Your task to perform on an android device: turn off data saver in the chrome app Image 0: 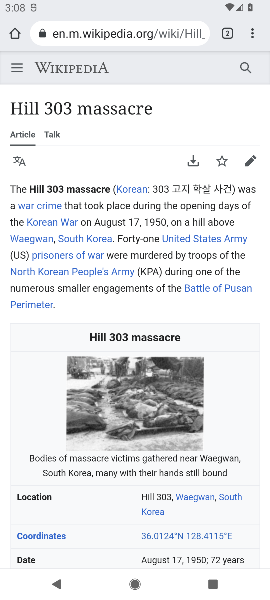
Step 0: click (251, 30)
Your task to perform on an android device: turn off data saver in the chrome app Image 1: 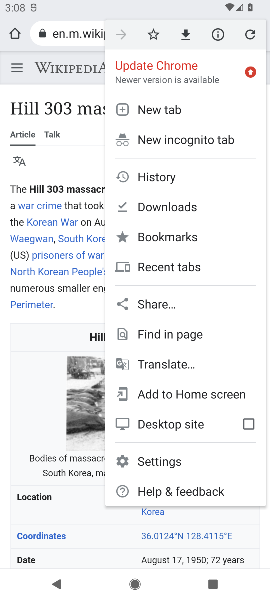
Step 1: click (163, 453)
Your task to perform on an android device: turn off data saver in the chrome app Image 2: 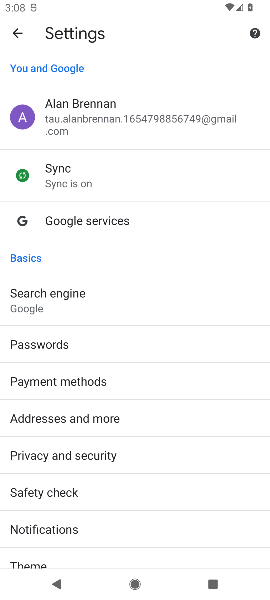
Step 2: drag from (147, 524) to (84, 27)
Your task to perform on an android device: turn off data saver in the chrome app Image 3: 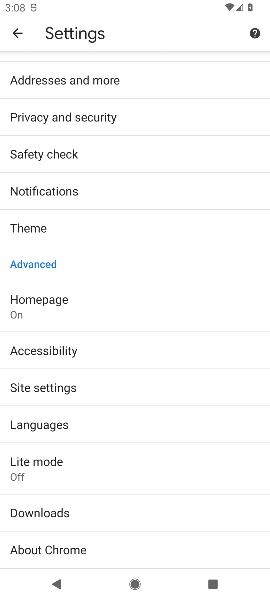
Step 3: click (36, 474)
Your task to perform on an android device: turn off data saver in the chrome app Image 4: 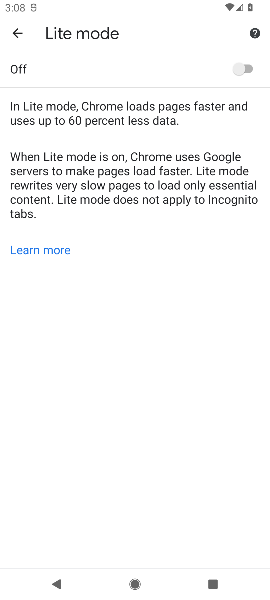
Step 4: task complete